Your task to perform on an android device: delete the emails in spam in the gmail app Image 0: 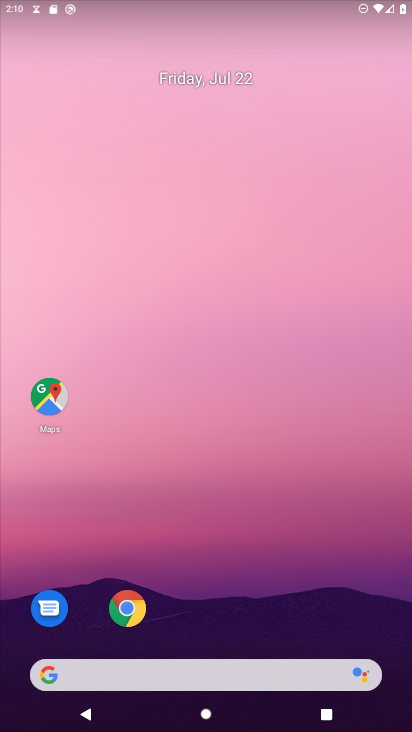
Step 0: drag from (238, 618) to (297, 212)
Your task to perform on an android device: delete the emails in spam in the gmail app Image 1: 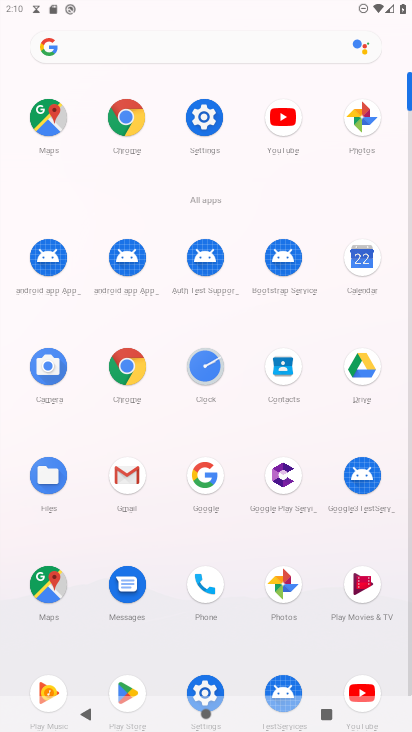
Step 1: click (120, 494)
Your task to perform on an android device: delete the emails in spam in the gmail app Image 2: 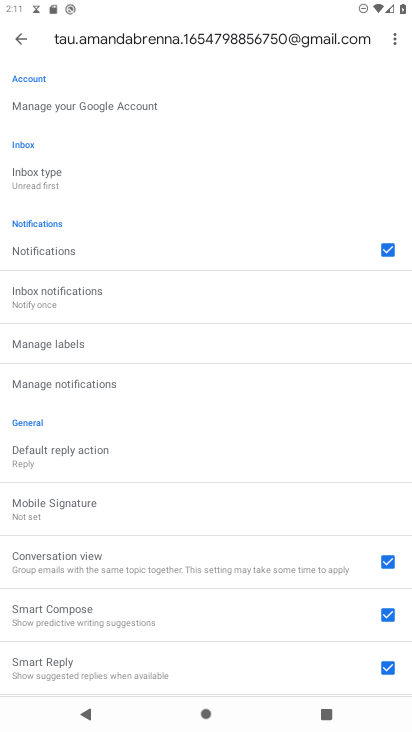
Step 2: click (21, 42)
Your task to perform on an android device: delete the emails in spam in the gmail app Image 3: 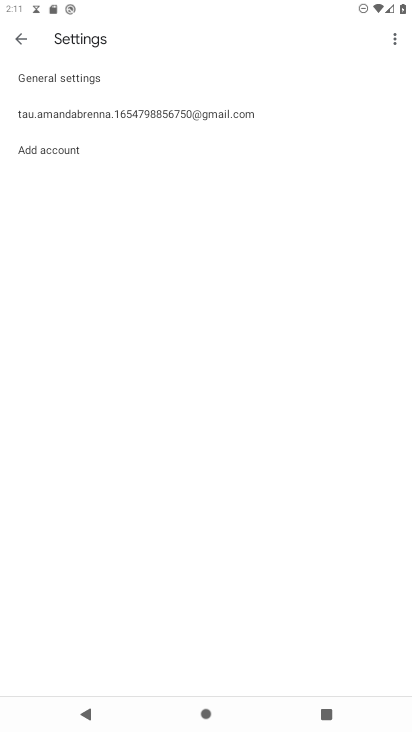
Step 3: click (33, 37)
Your task to perform on an android device: delete the emails in spam in the gmail app Image 4: 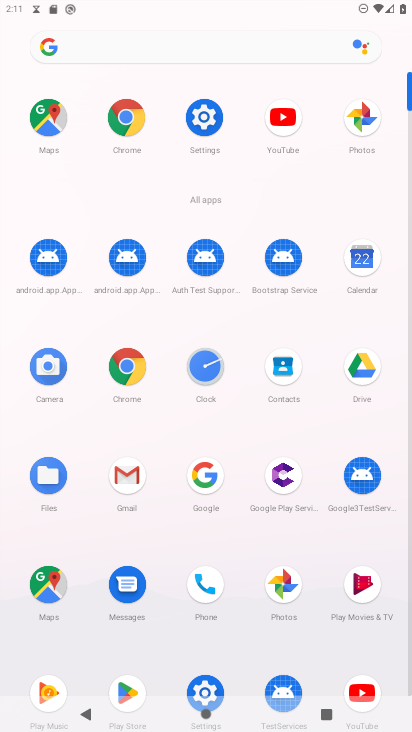
Step 4: click (121, 475)
Your task to perform on an android device: delete the emails in spam in the gmail app Image 5: 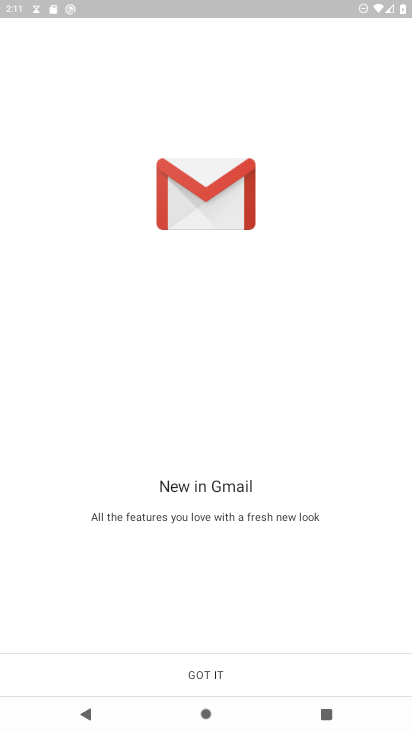
Step 5: click (240, 670)
Your task to perform on an android device: delete the emails in spam in the gmail app Image 6: 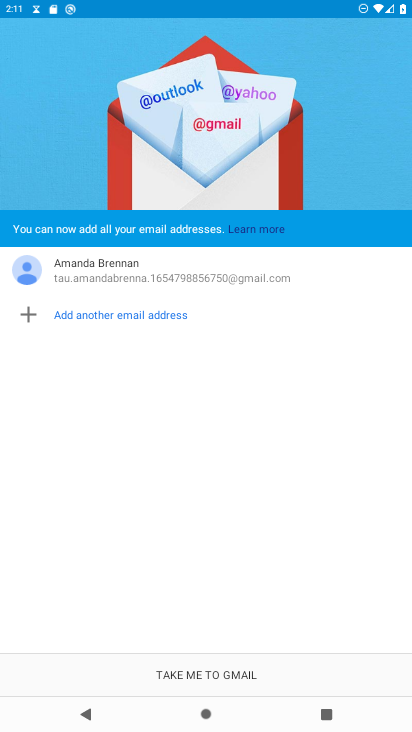
Step 6: click (240, 670)
Your task to perform on an android device: delete the emails in spam in the gmail app Image 7: 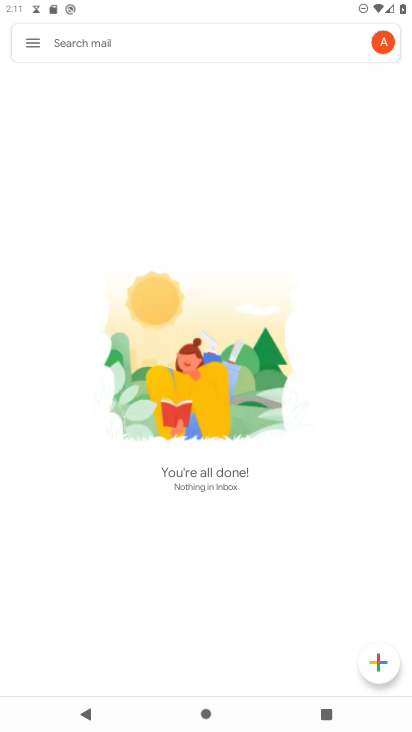
Step 7: click (26, 43)
Your task to perform on an android device: delete the emails in spam in the gmail app Image 8: 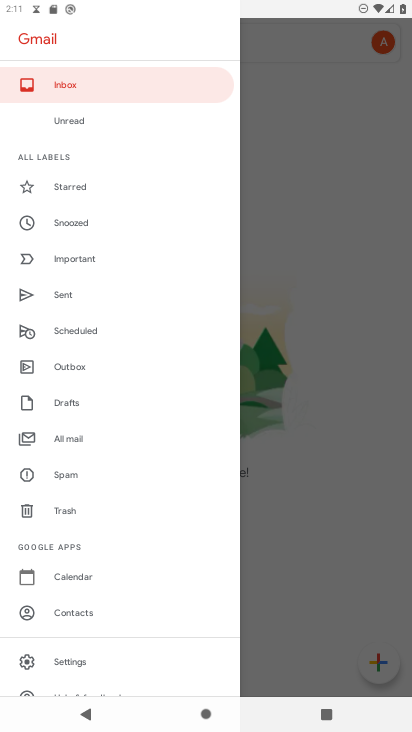
Step 8: click (84, 482)
Your task to perform on an android device: delete the emails in spam in the gmail app Image 9: 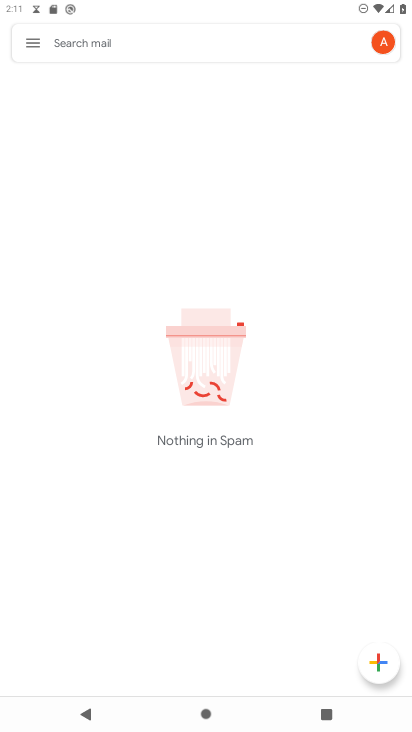
Step 9: task complete